Your task to perform on an android device: Play the latest video from the Wall Street Journal Image 0: 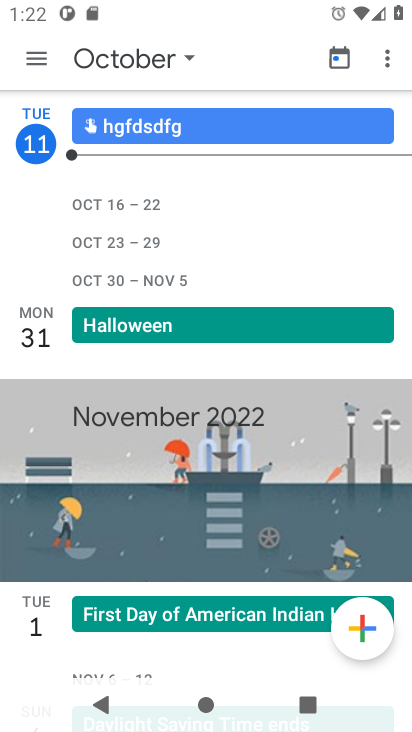
Step 0: press home button
Your task to perform on an android device: Play the latest video from the Wall Street Journal Image 1: 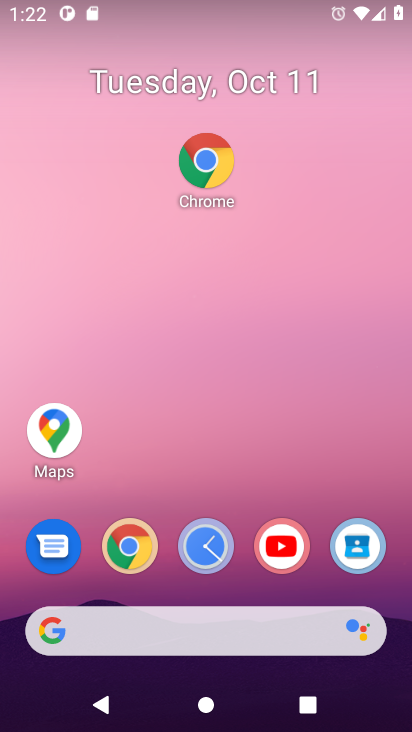
Step 1: click (124, 554)
Your task to perform on an android device: Play the latest video from the Wall Street Journal Image 2: 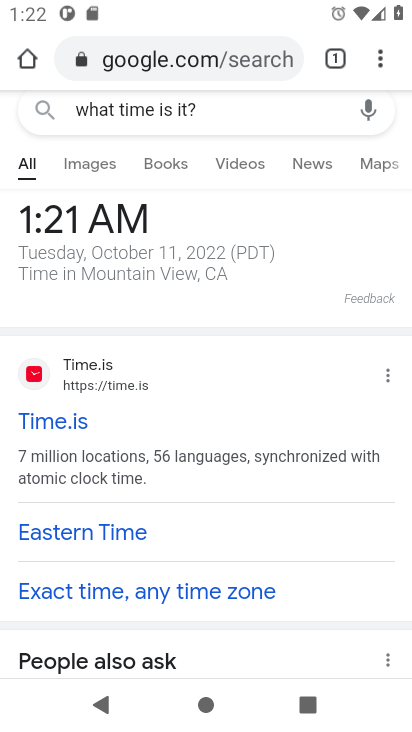
Step 2: click (161, 51)
Your task to perform on an android device: Play the latest video from the Wall Street Journal Image 3: 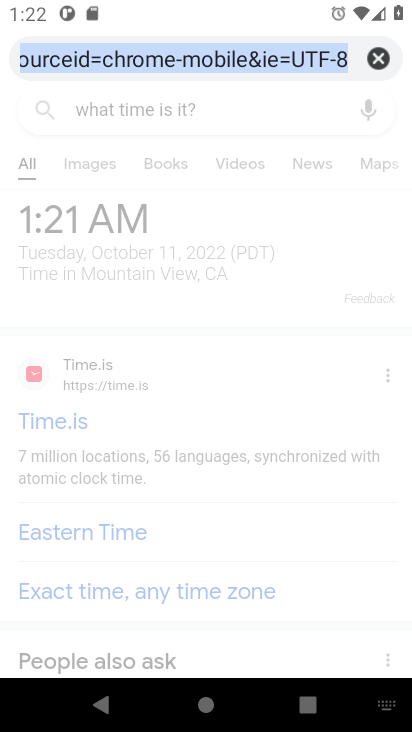
Step 3: type "the wall street journal latest video"
Your task to perform on an android device: Play the latest video from the Wall Street Journal Image 4: 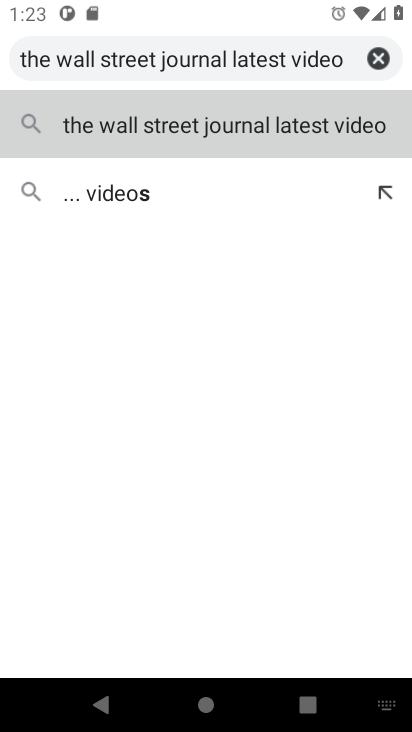
Step 4: press enter
Your task to perform on an android device: Play the latest video from the Wall Street Journal Image 5: 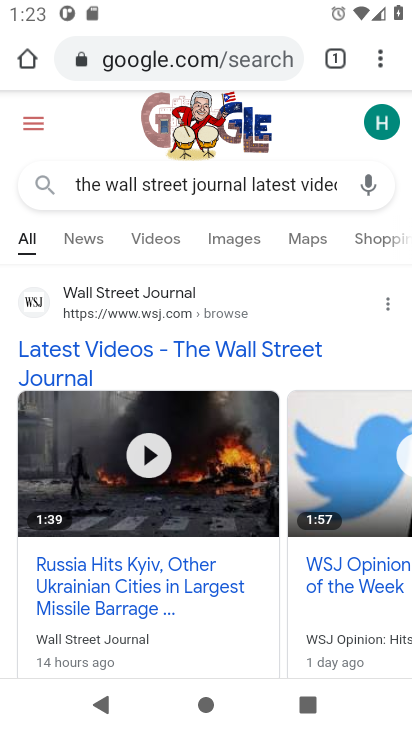
Step 5: drag from (206, 560) to (177, 252)
Your task to perform on an android device: Play the latest video from the Wall Street Journal Image 6: 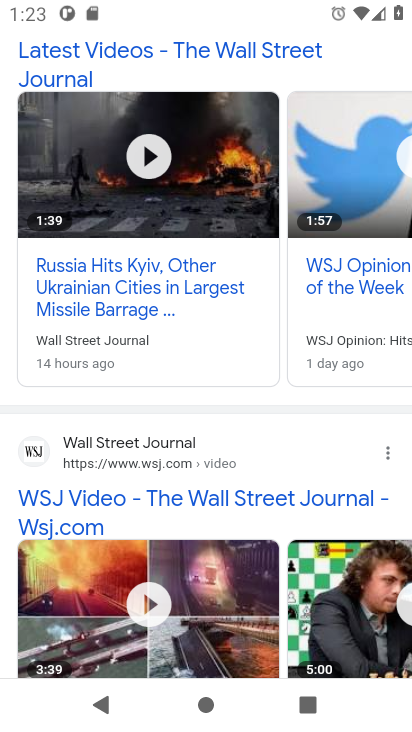
Step 6: drag from (238, 574) to (237, 315)
Your task to perform on an android device: Play the latest video from the Wall Street Journal Image 7: 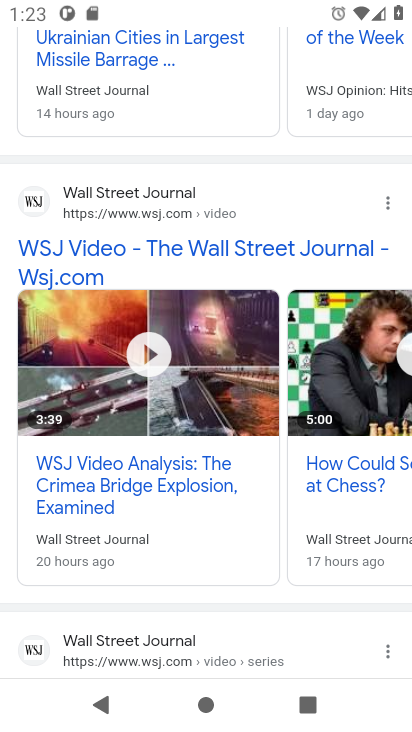
Step 7: drag from (241, 609) to (208, 306)
Your task to perform on an android device: Play the latest video from the Wall Street Journal Image 8: 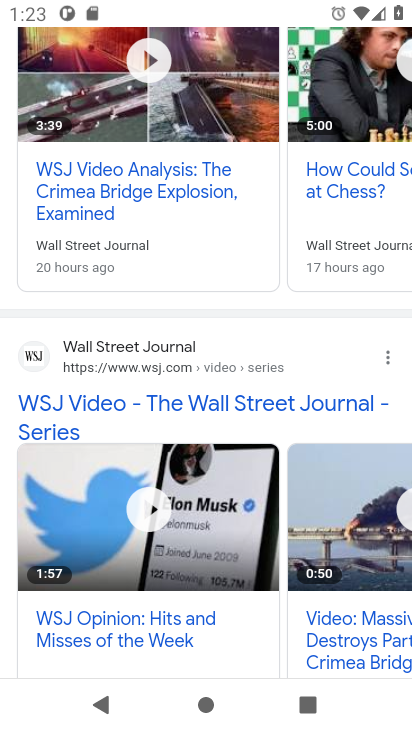
Step 8: drag from (232, 635) to (200, 286)
Your task to perform on an android device: Play the latest video from the Wall Street Journal Image 9: 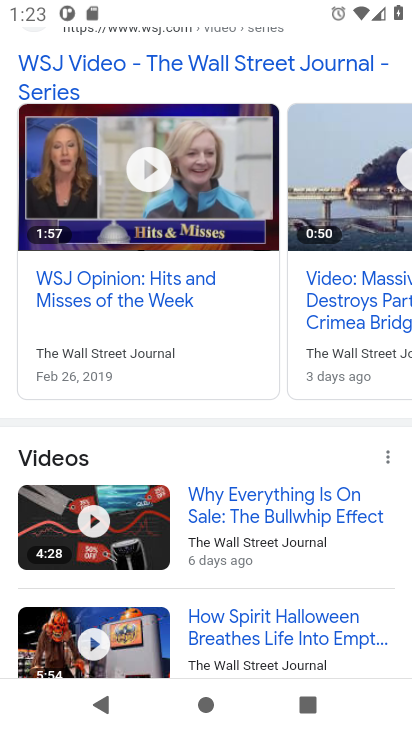
Step 9: click (277, 505)
Your task to perform on an android device: Play the latest video from the Wall Street Journal Image 10: 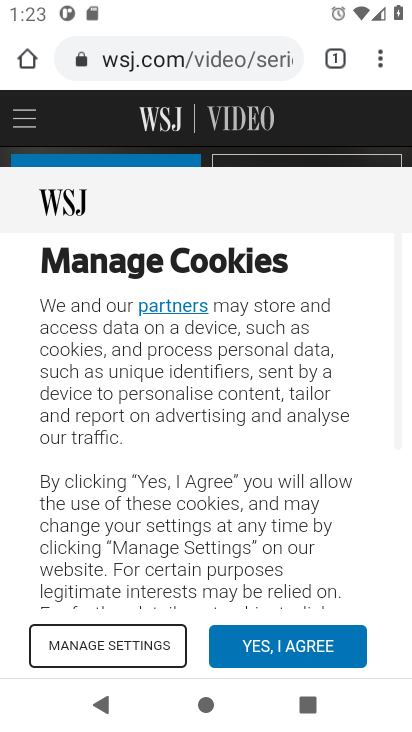
Step 10: click (295, 644)
Your task to perform on an android device: Play the latest video from the Wall Street Journal Image 11: 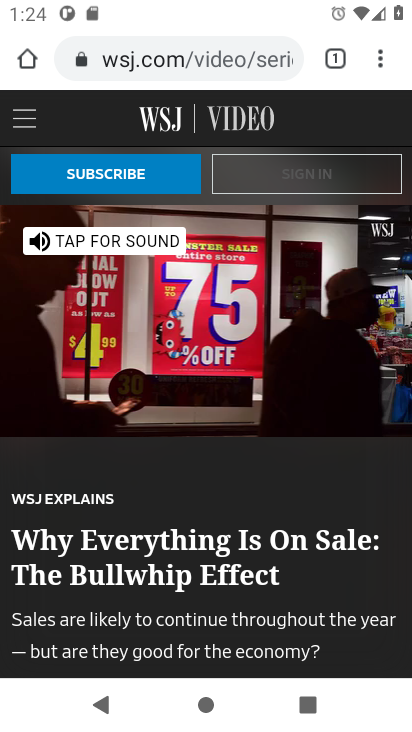
Step 11: task complete